Your task to perform on an android device: What's the weather going to be tomorrow? Image 0: 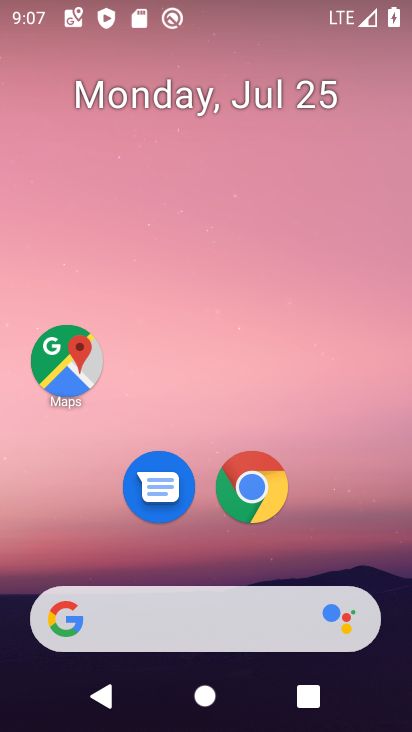
Step 0: click (148, 614)
Your task to perform on an android device: What's the weather going to be tomorrow? Image 1: 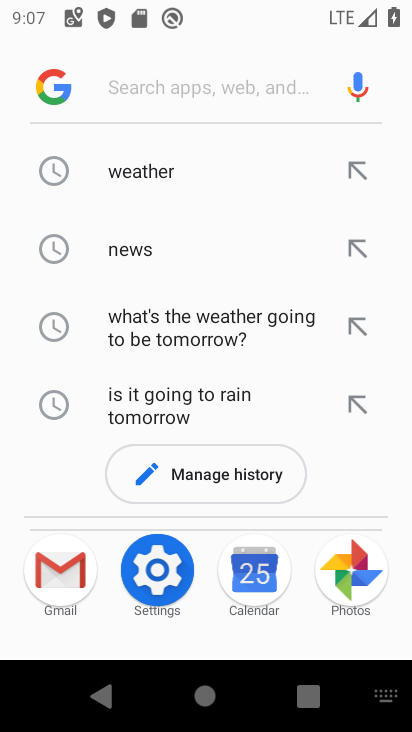
Step 1: click (140, 173)
Your task to perform on an android device: What's the weather going to be tomorrow? Image 2: 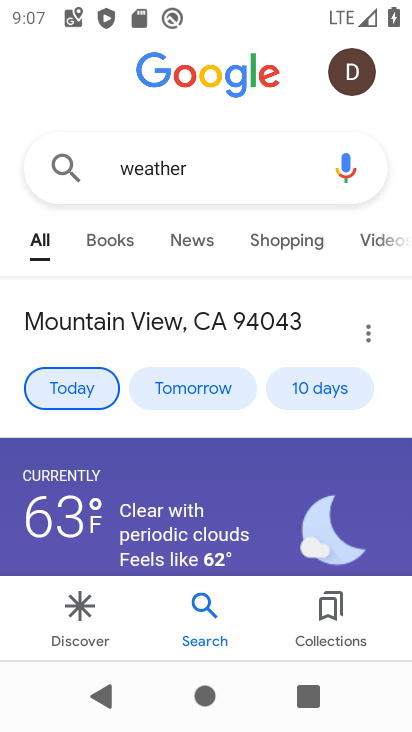
Step 2: click (181, 382)
Your task to perform on an android device: What's the weather going to be tomorrow? Image 3: 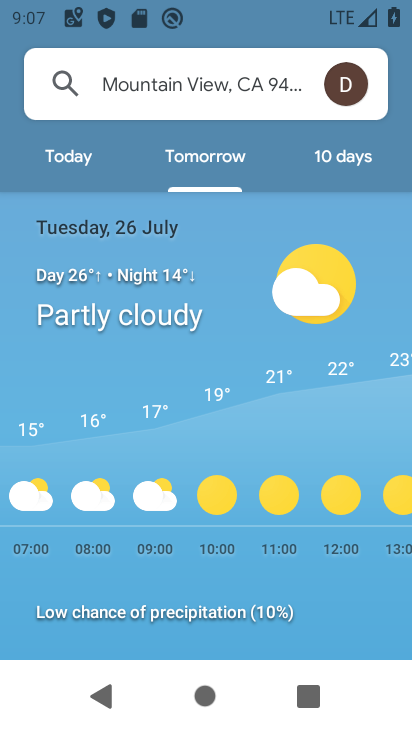
Step 3: task complete